Your task to perform on an android device: Open the calendar and show me this week's events? Image 0: 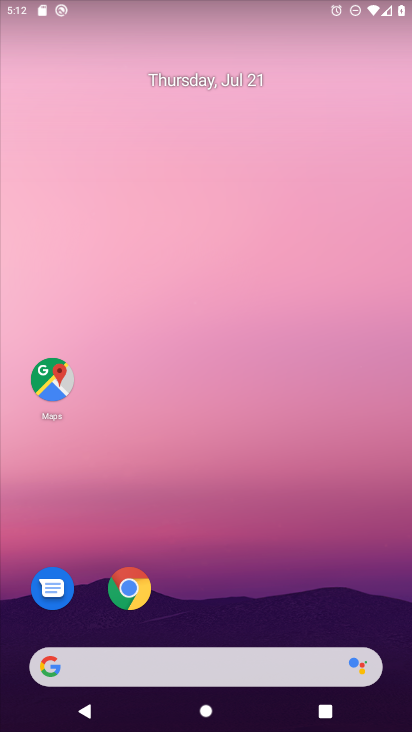
Step 0: drag from (356, 612) to (236, 127)
Your task to perform on an android device: Open the calendar and show me this week's events? Image 1: 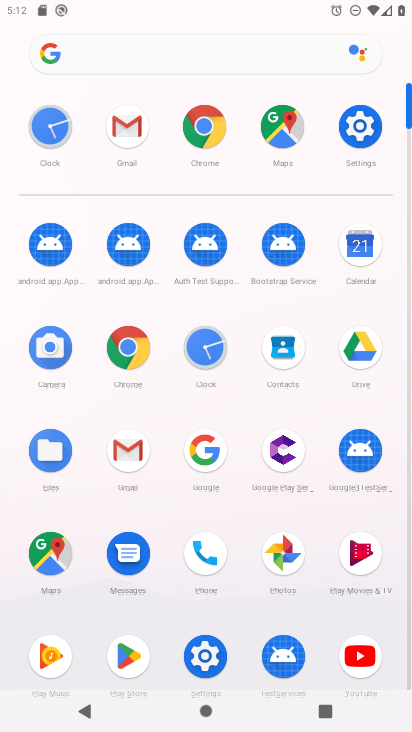
Step 1: click (361, 246)
Your task to perform on an android device: Open the calendar and show me this week's events? Image 2: 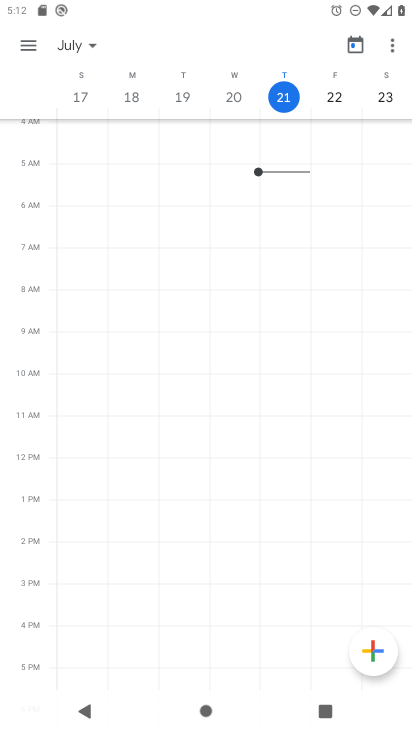
Step 2: click (31, 48)
Your task to perform on an android device: Open the calendar and show me this week's events? Image 3: 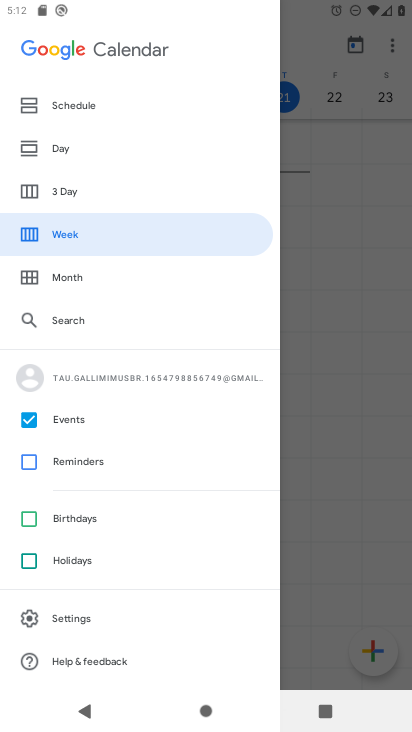
Step 3: click (99, 240)
Your task to perform on an android device: Open the calendar and show me this week's events? Image 4: 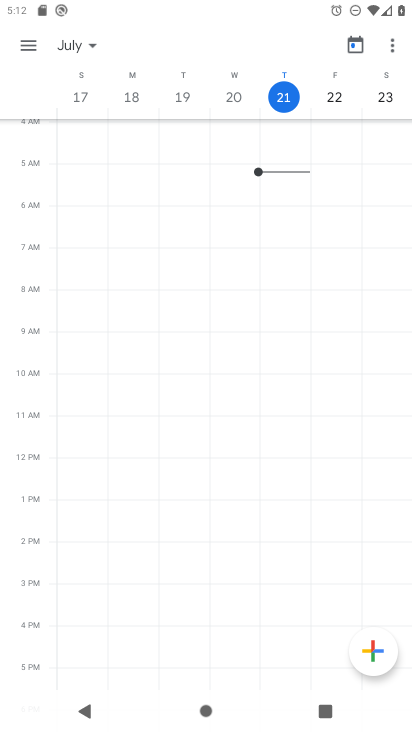
Step 4: task complete